Your task to perform on an android device: turn on translation in the chrome app Image 0: 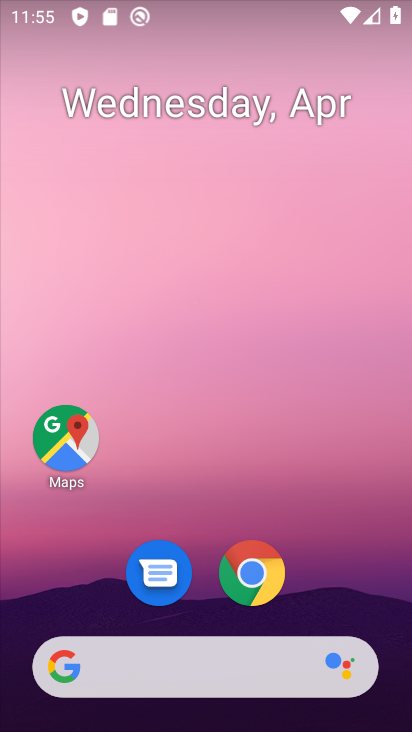
Step 0: click (253, 574)
Your task to perform on an android device: turn on translation in the chrome app Image 1: 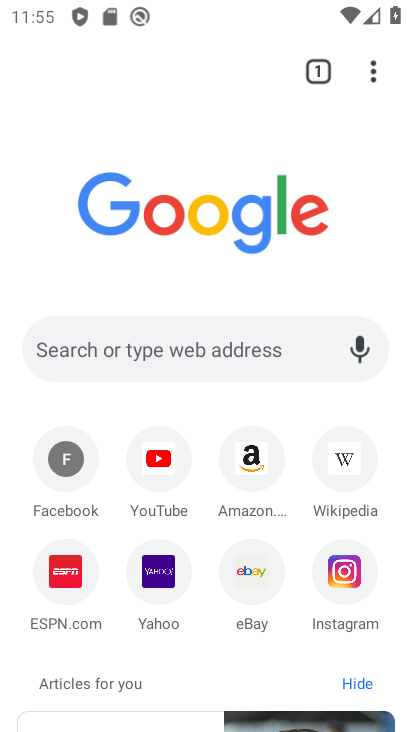
Step 1: click (368, 70)
Your task to perform on an android device: turn on translation in the chrome app Image 2: 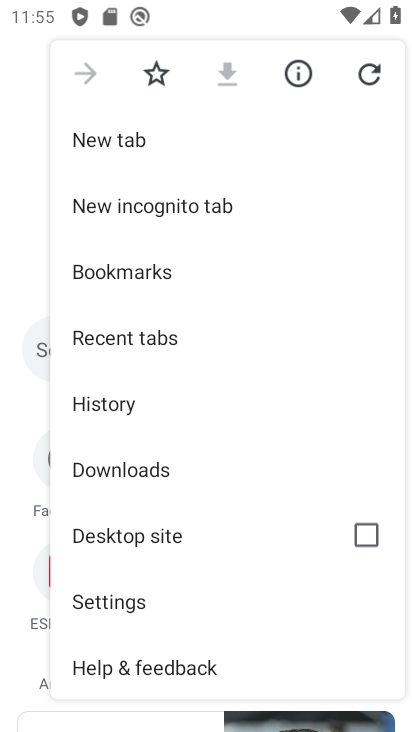
Step 2: click (155, 593)
Your task to perform on an android device: turn on translation in the chrome app Image 3: 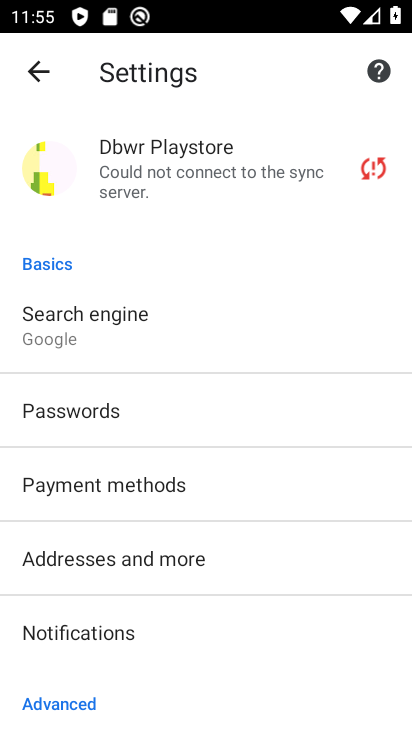
Step 3: drag from (233, 614) to (214, 145)
Your task to perform on an android device: turn on translation in the chrome app Image 4: 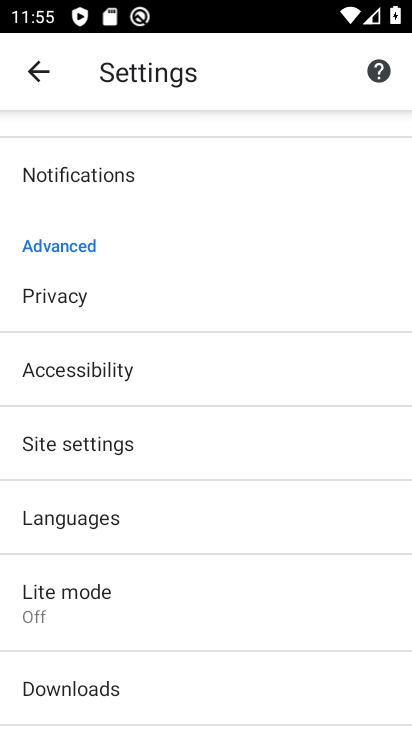
Step 4: click (111, 516)
Your task to perform on an android device: turn on translation in the chrome app Image 5: 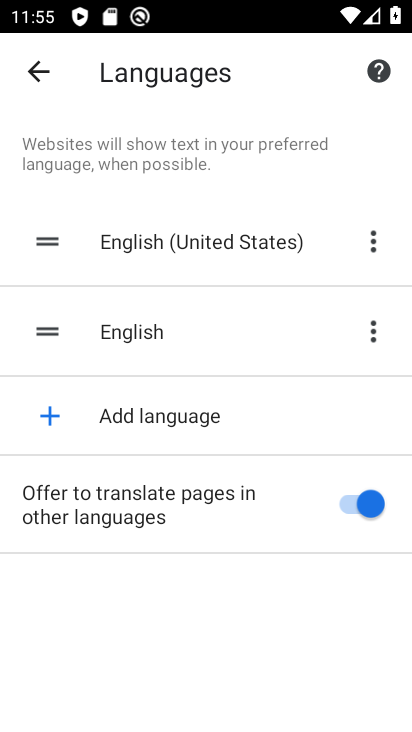
Step 5: task complete